Your task to perform on an android device: change timer sound Image 0: 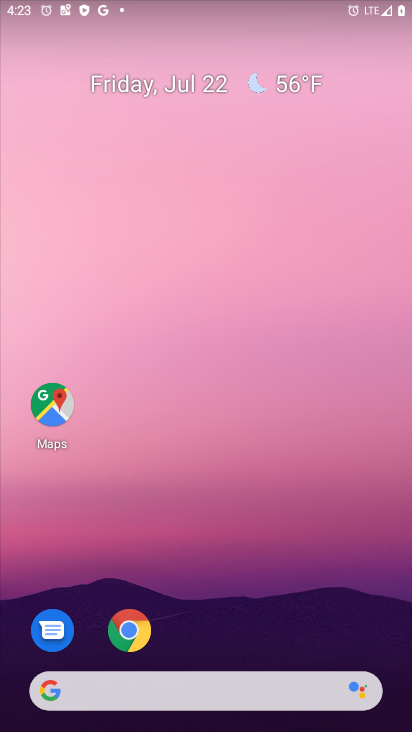
Step 0: drag from (238, 701) to (187, 229)
Your task to perform on an android device: change timer sound Image 1: 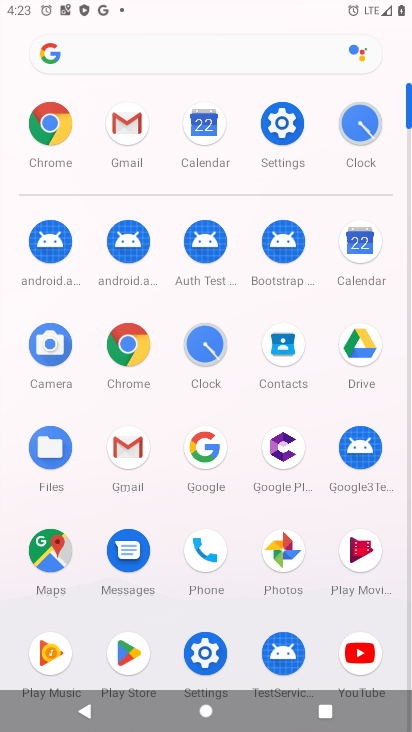
Step 1: click (269, 125)
Your task to perform on an android device: change timer sound Image 2: 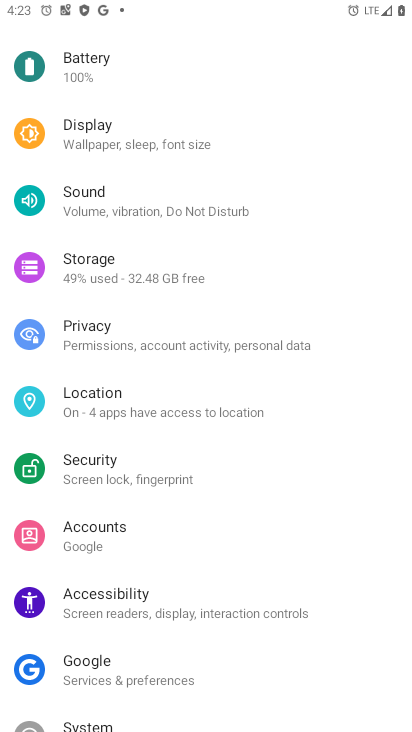
Step 2: press home button
Your task to perform on an android device: change timer sound Image 3: 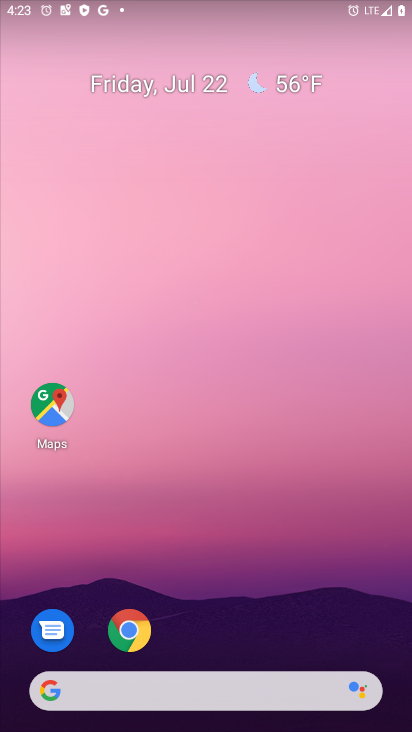
Step 3: drag from (237, 624) to (220, 152)
Your task to perform on an android device: change timer sound Image 4: 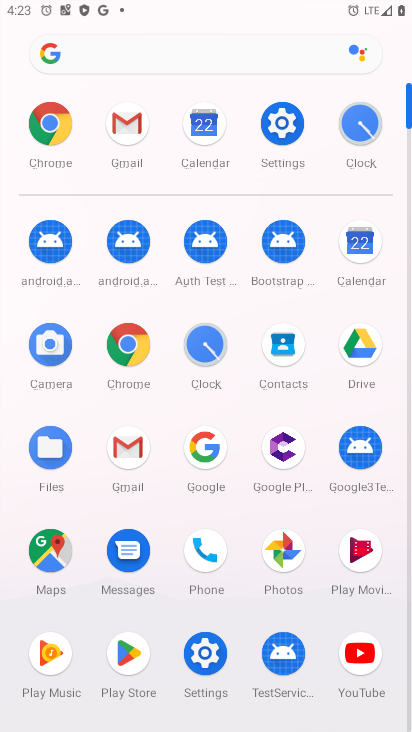
Step 4: click (211, 352)
Your task to perform on an android device: change timer sound Image 5: 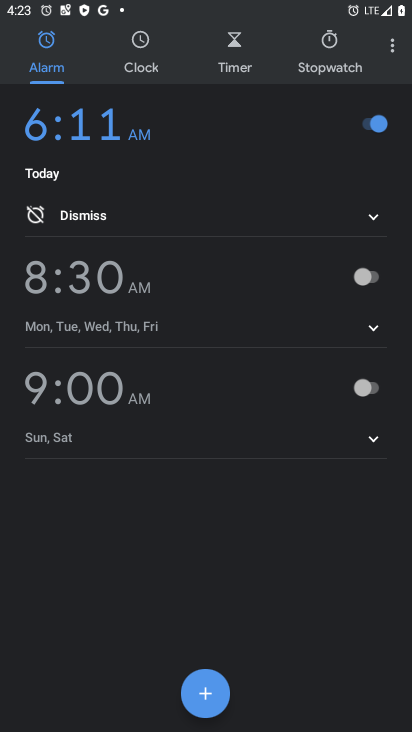
Step 5: click (394, 42)
Your task to perform on an android device: change timer sound Image 6: 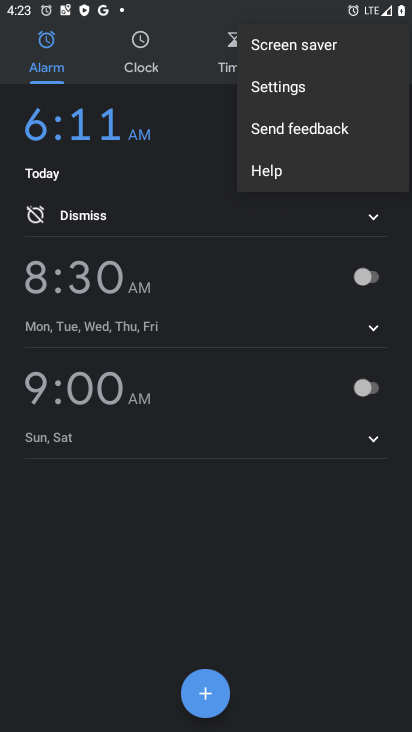
Step 6: click (291, 97)
Your task to perform on an android device: change timer sound Image 7: 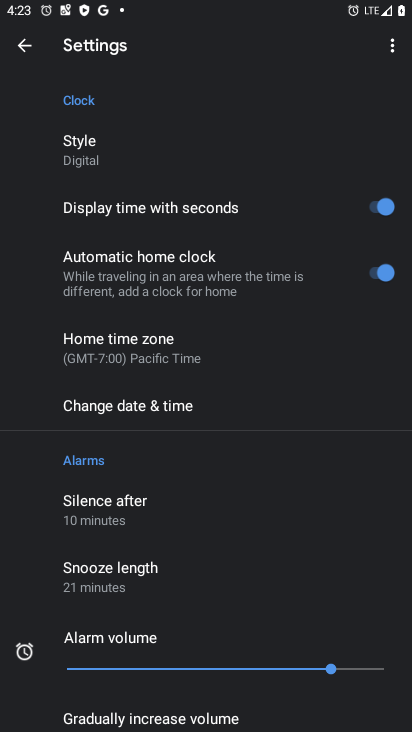
Step 7: drag from (176, 579) to (151, 214)
Your task to perform on an android device: change timer sound Image 8: 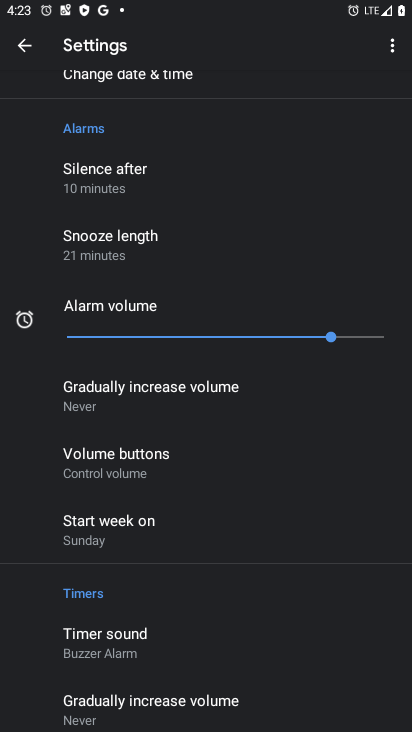
Step 8: click (139, 652)
Your task to perform on an android device: change timer sound Image 9: 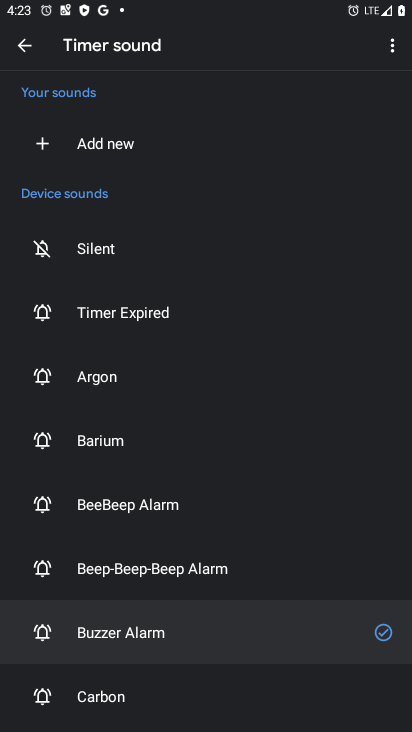
Step 9: click (110, 388)
Your task to perform on an android device: change timer sound Image 10: 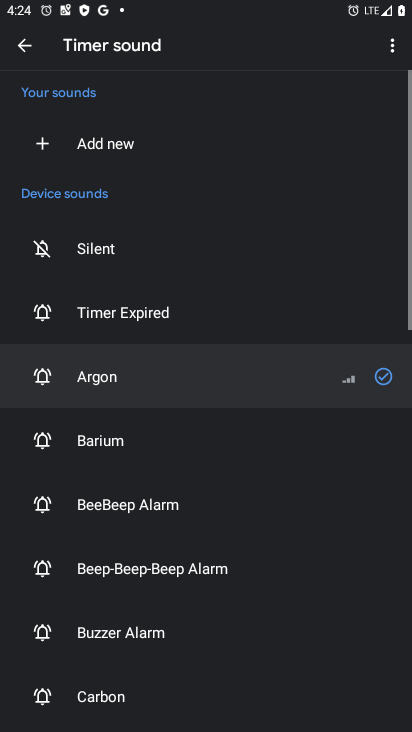
Step 10: task complete